Your task to perform on an android device: Open the web browser Image 0: 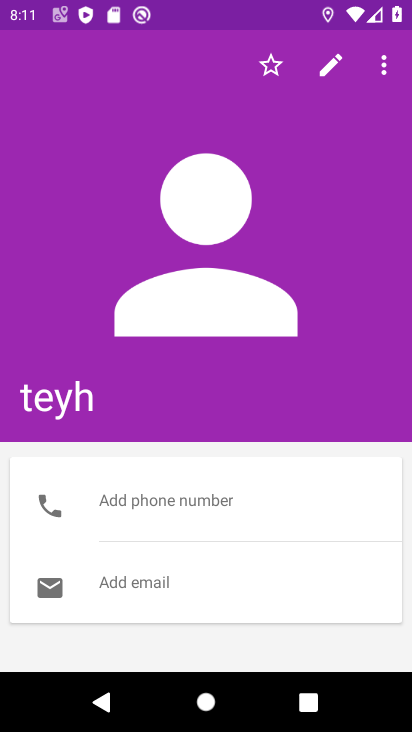
Step 0: press home button
Your task to perform on an android device: Open the web browser Image 1: 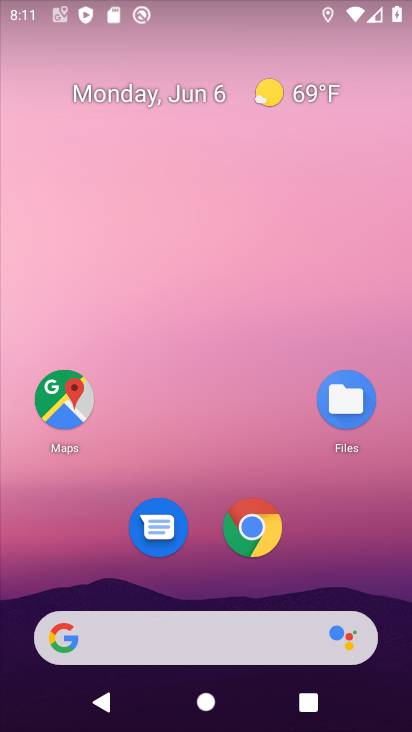
Step 1: drag from (228, 585) to (201, 146)
Your task to perform on an android device: Open the web browser Image 2: 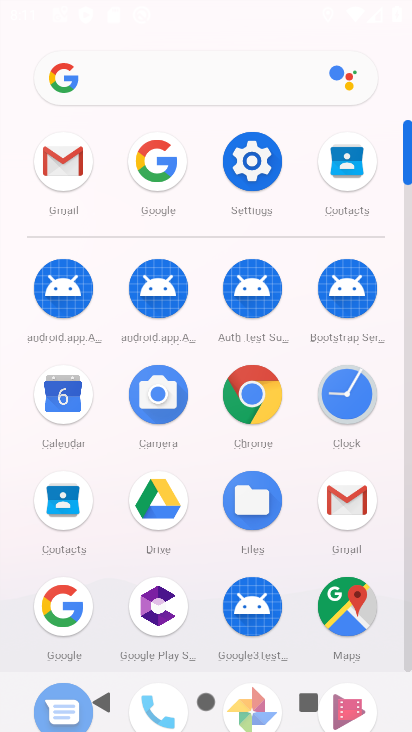
Step 2: click (161, 160)
Your task to perform on an android device: Open the web browser Image 3: 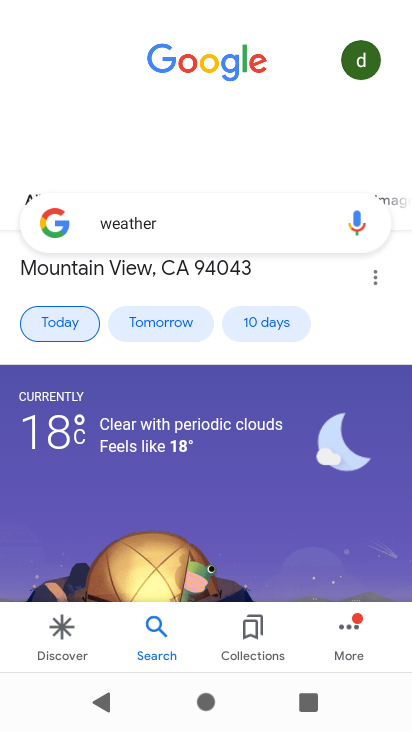
Step 3: click (218, 220)
Your task to perform on an android device: Open the web browser Image 4: 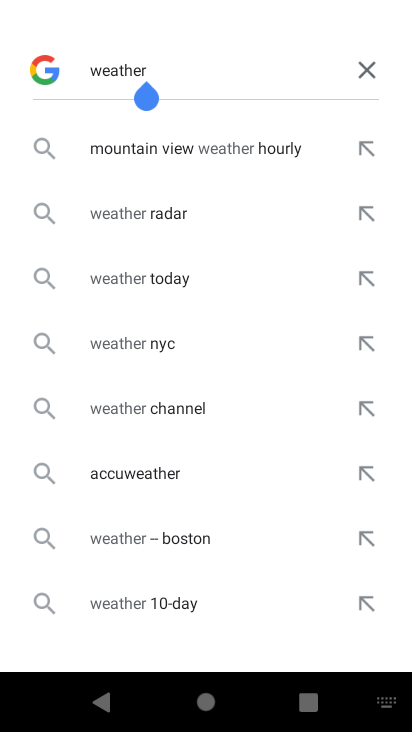
Step 4: task complete